Your task to perform on an android device: turn notification dots on Image 0: 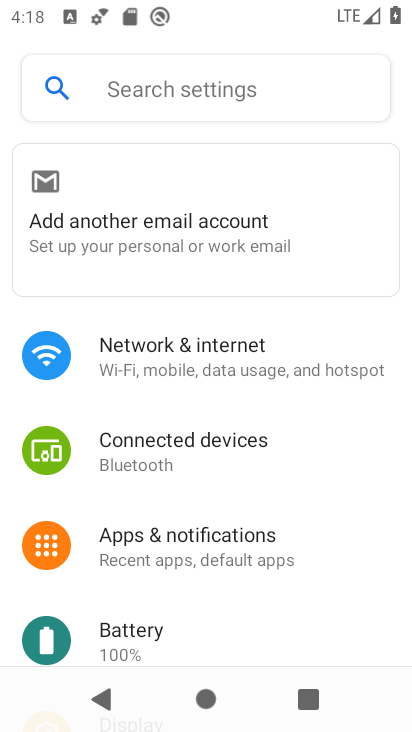
Step 0: click (165, 546)
Your task to perform on an android device: turn notification dots on Image 1: 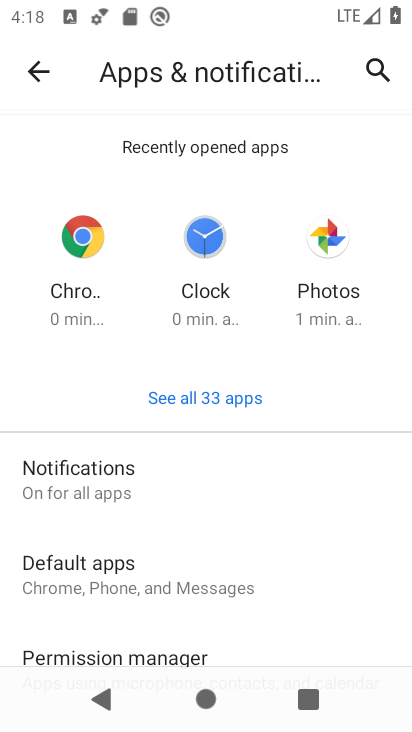
Step 1: click (61, 464)
Your task to perform on an android device: turn notification dots on Image 2: 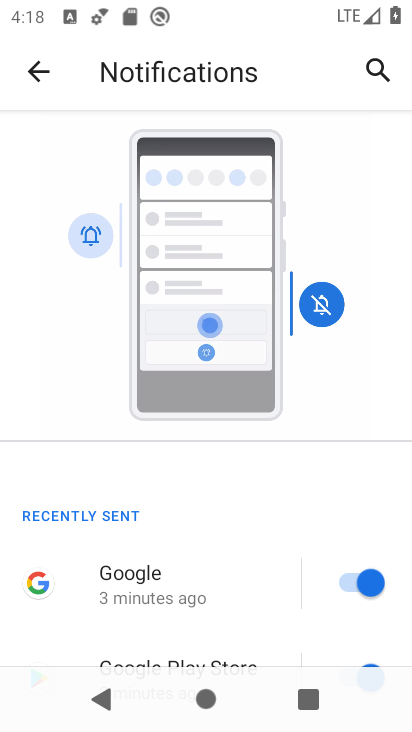
Step 2: drag from (313, 617) to (216, 154)
Your task to perform on an android device: turn notification dots on Image 3: 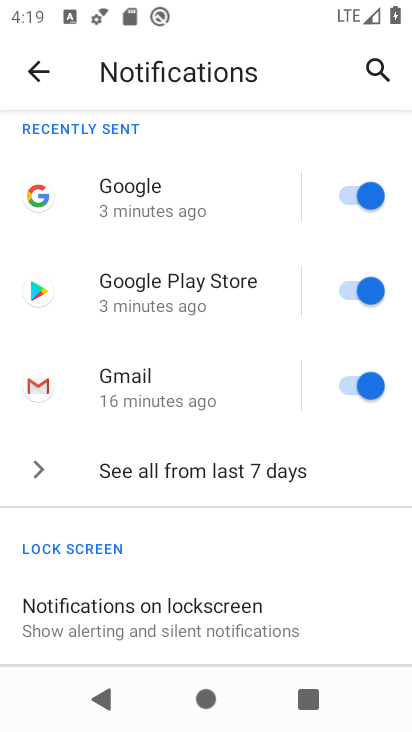
Step 3: drag from (311, 610) to (261, 139)
Your task to perform on an android device: turn notification dots on Image 4: 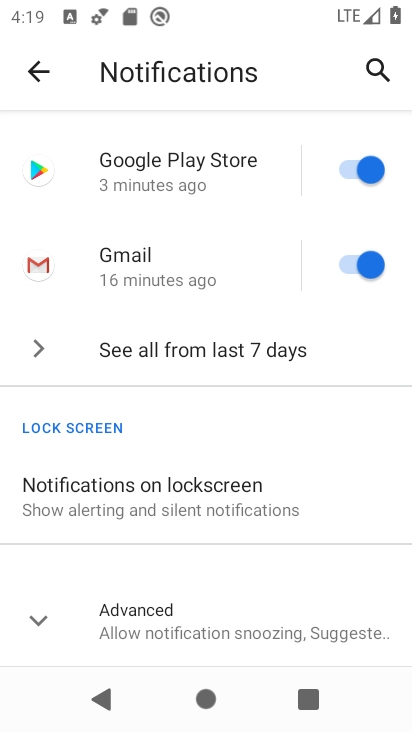
Step 4: click (41, 622)
Your task to perform on an android device: turn notification dots on Image 5: 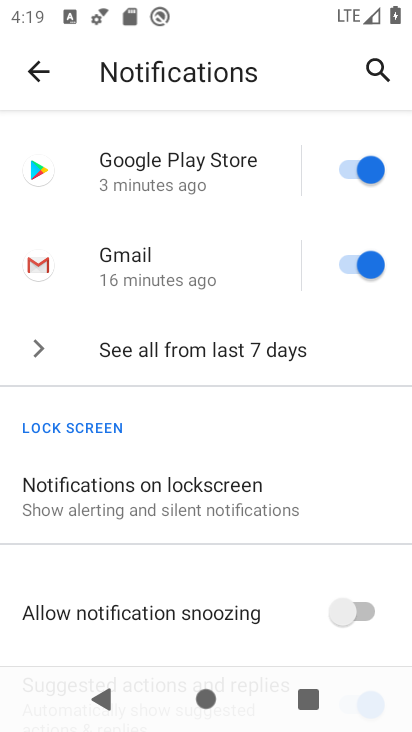
Step 5: drag from (191, 602) to (253, 323)
Your task to perform on an android device: turn notification dots on Image 6: 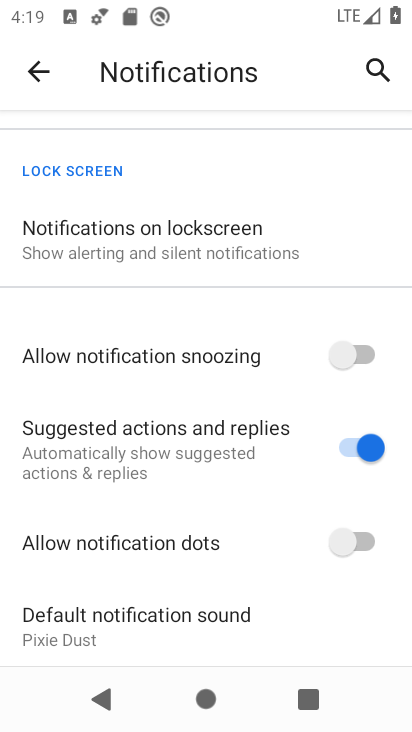
Step 6: click (361, 542)
Your task to perform on an android device: turn notification dots on Image 7: 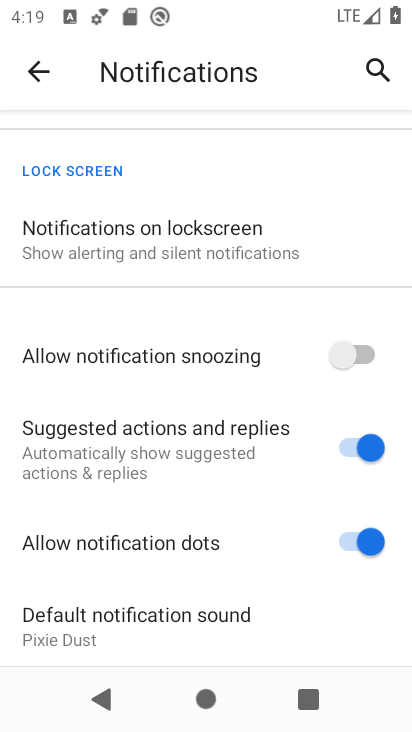
Step 7: task complete